Your task to perform on an android device: Open calendar and show me the third week of next month Image 0: 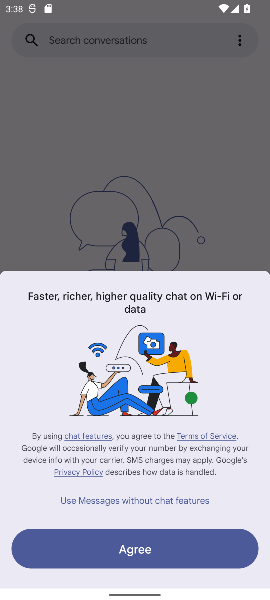
Step 0: click (178, 228)
Your task to perform on an android device: Open calendar and show me the third week of next month Image 1: 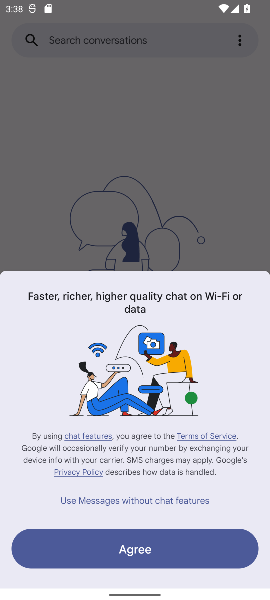
Step 1: click (178, 228)
Your task to perform on an android device: Open calendar and show me the third week of next month Image 2: 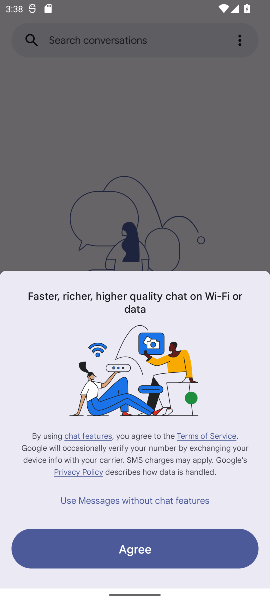
Step 2: click (178, 228)
Your task to perform on an android device: Open calendar and show me the third week of next month Image 3: 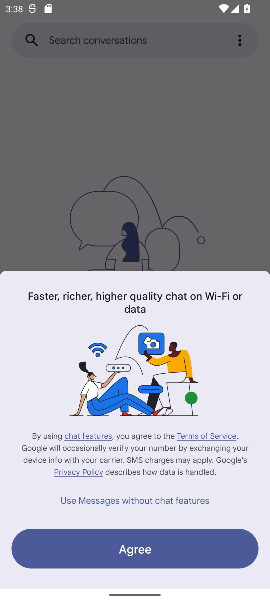
Step 3: click (141, 540)
Your task to perform on an android device: Open calendar and show me the third week of next month Image 4: 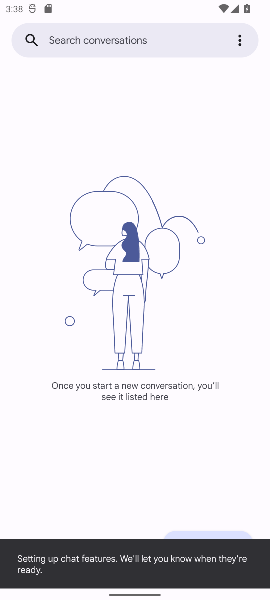
Step 4: task complete